Your task to perform on an android device: Open Wikipedia Image 0: 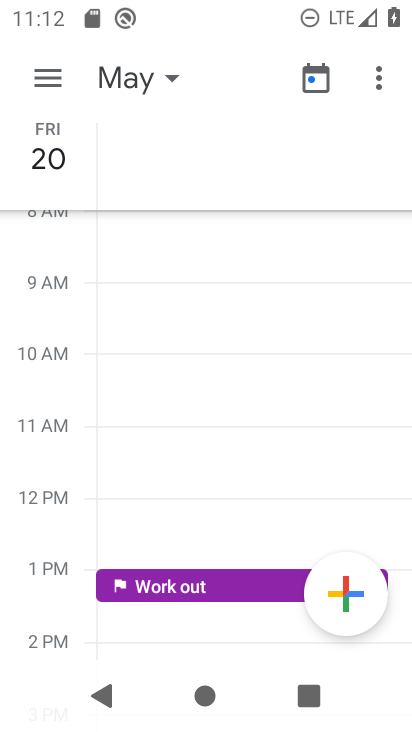
Step 0: press home button
Your task to perform on an android device: Open Wikipedia Image 1: 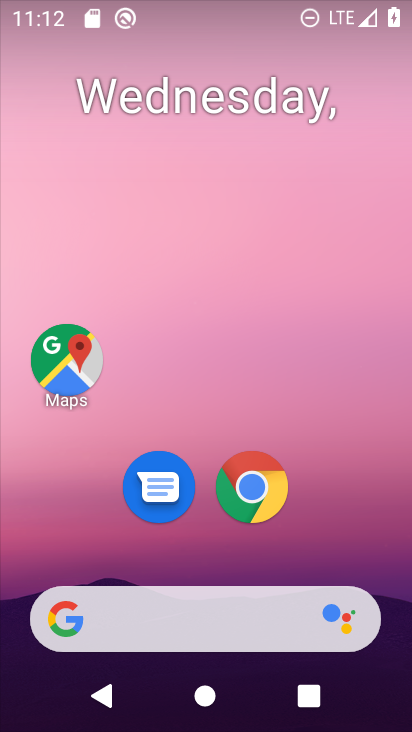
Step 1: click (246, 485)
Your task to perform on an android device: Open Wikipedia Image 2: 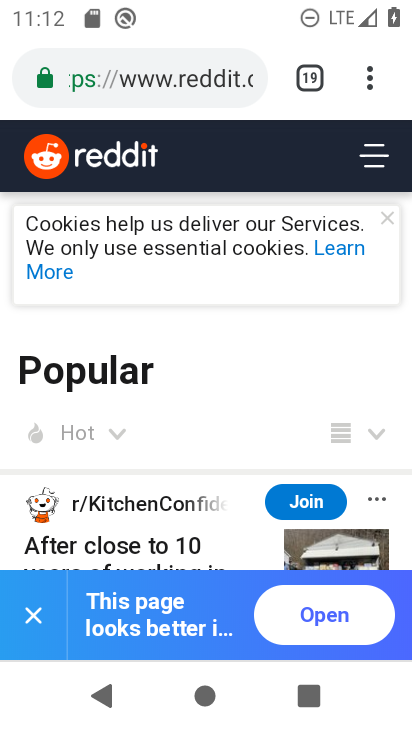
Step 2: click (366, 64)
Your task to perform on an android device: Open Wikipedia Image 3: 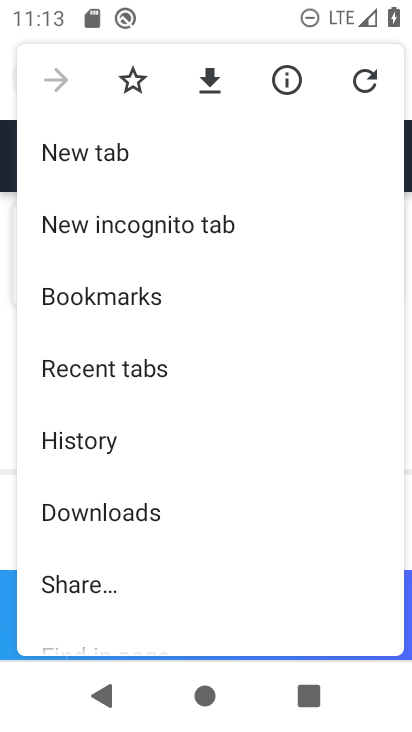
Step 3: click (95, 152)
Your task to perform on an android device: Open Wikipedia Image 4: 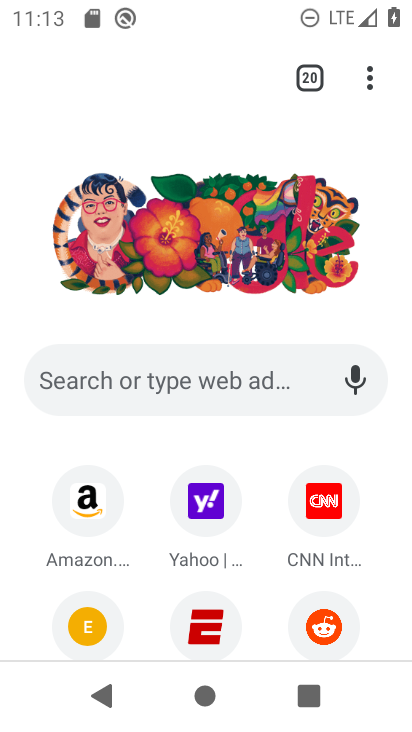
Step 4: drag from (148, 441) to (144, 169)
Your task to perform on an android device: Open Wikipedia Image 5: 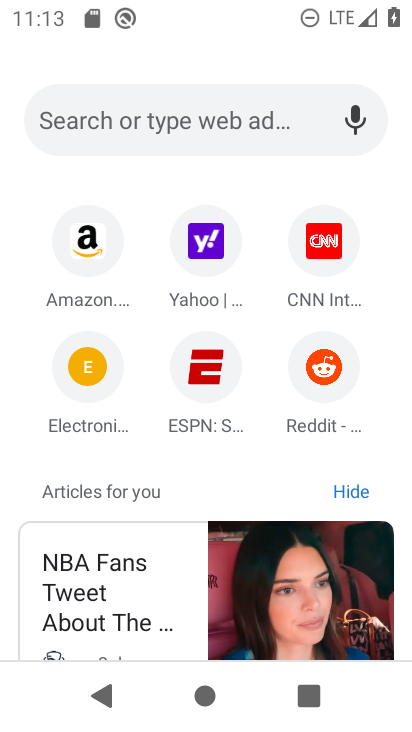
Step 5: click (171, 113)
Your task to perform on an android device: Open Wikipedia Image 6: 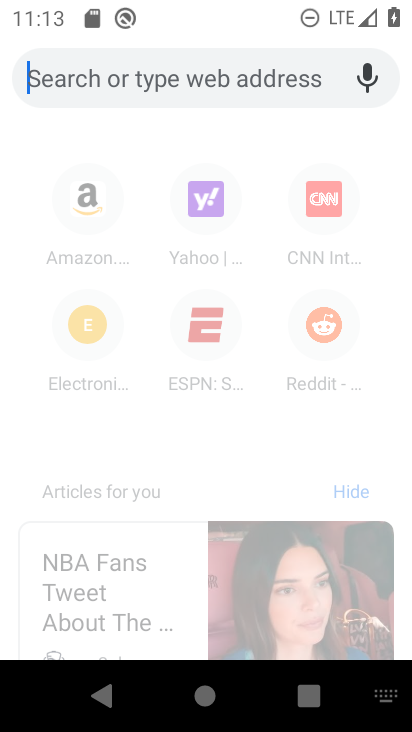
Step 6: type "wikipedia"
Your task to perform on an android device: Open Wikipedia Image 7: 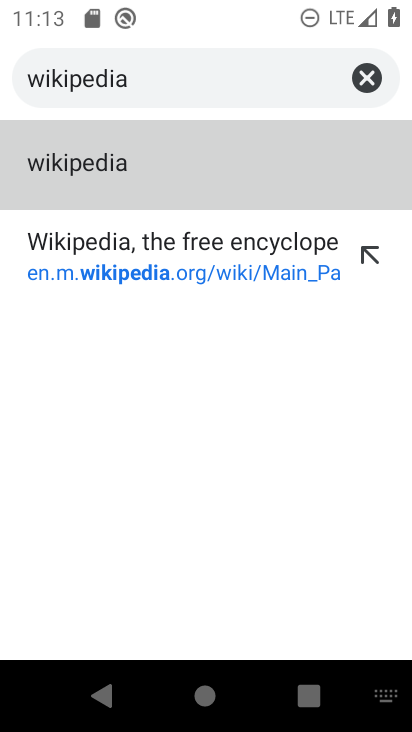
Step 7: click (76, 157)
Your task to perform on an android device: Open Wikipedia Image 8: 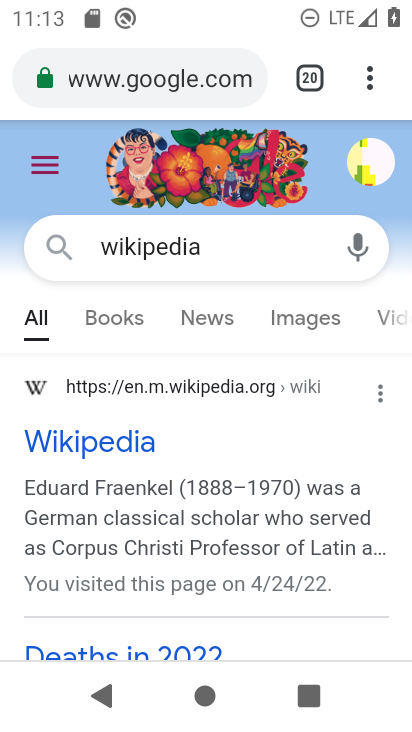
Step 8: task complete